Your task to perform on an android device: refresh tabs in the chrome app Image 0: 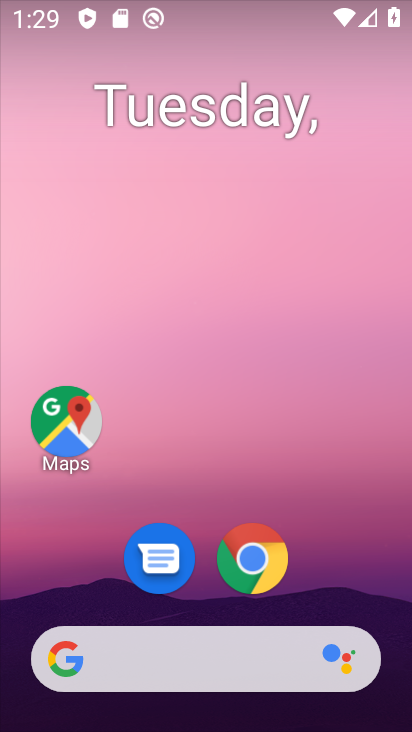
Step 0: click (251, 549)
Your task to perform on an android device: refresh tabs in the chrome app Image 1: 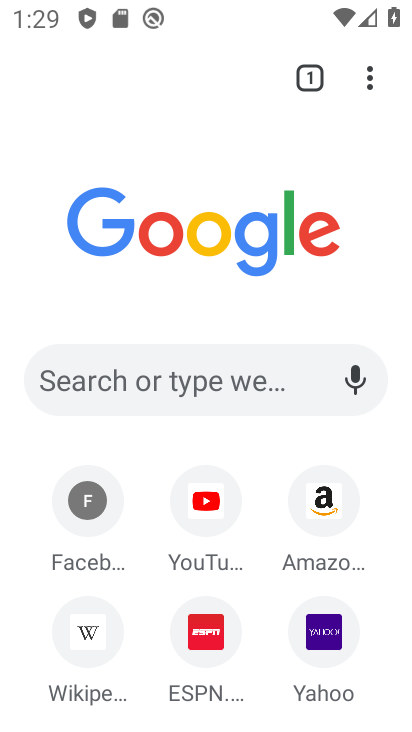
Step 1: click (371, 71)
Your task to perform on an android device: refresh tabs in the chrome app Image 2: 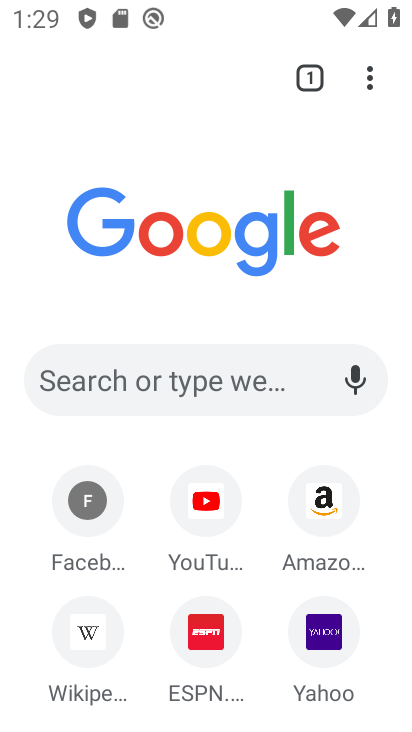
Step 2: click (371, 71)
Your task to perform on an android device: refresh tabs in the chrome app Image 3: 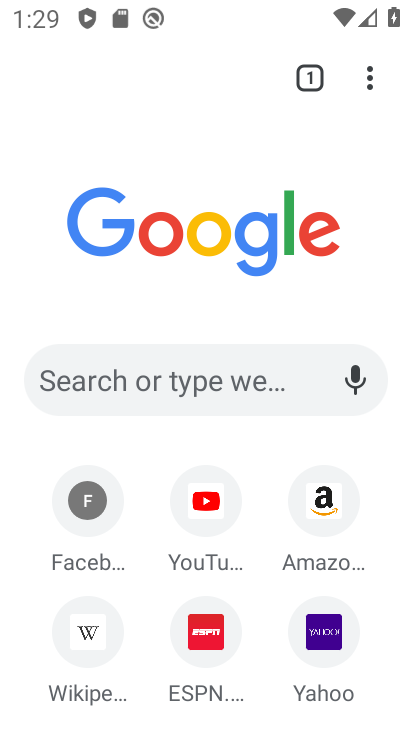
Step 3: task complete